Your task to perform on an android device: turn on the 12-hour format for clock Image 0: 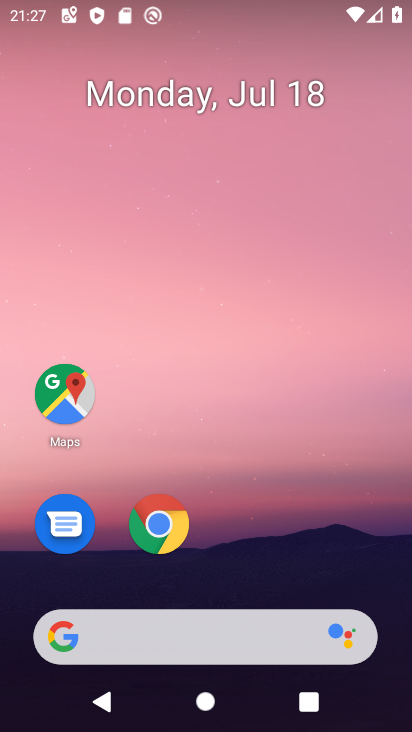
Step 0: drag from (271, 570) to (319, 0)
Your task to perform on an android device: turn on the 12-hour format for clock Image 1: 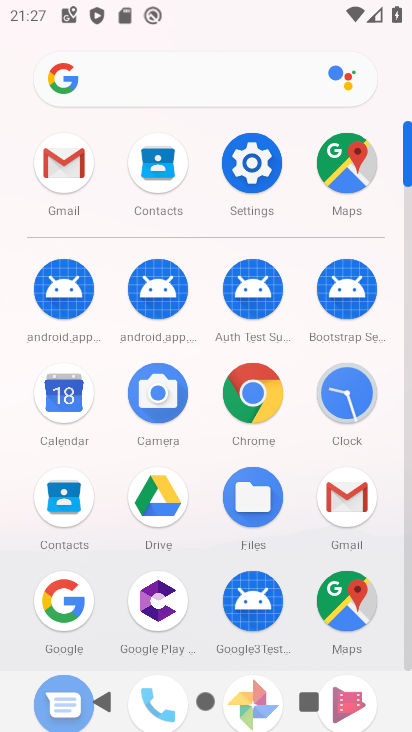
Step 1: click (345, 389)
Your task to perform on an android device: turn on the 12-hour format for clock Image 2: 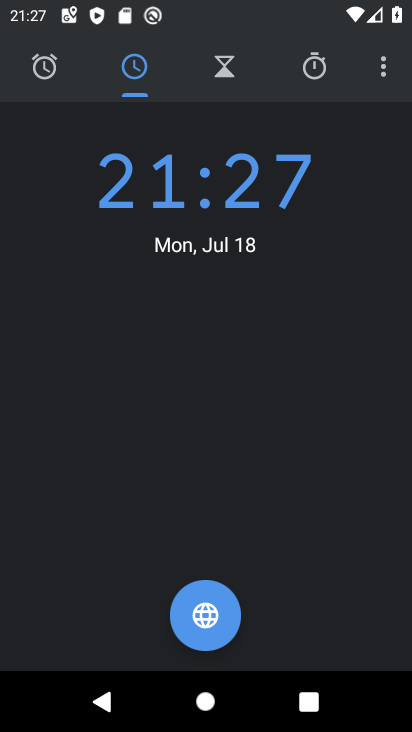
Step 2: click (393, 77)
Your task to perform on an android device: turn on the 12-hour format for clock Image 3: 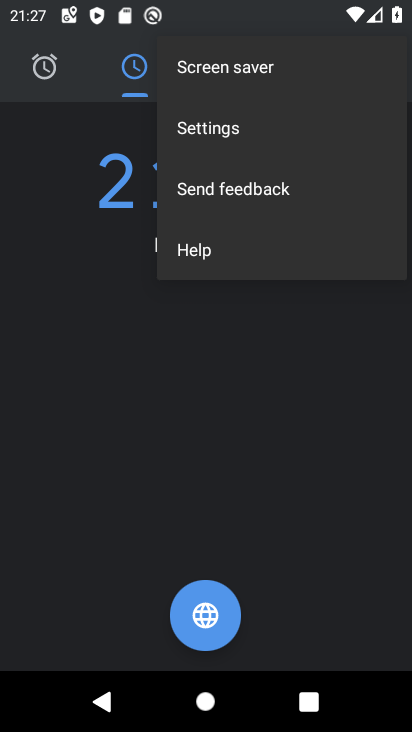
Step 3: click (330, 126)
Your task to perform on an android device: turn on the 12-hour format for clock Image 4: 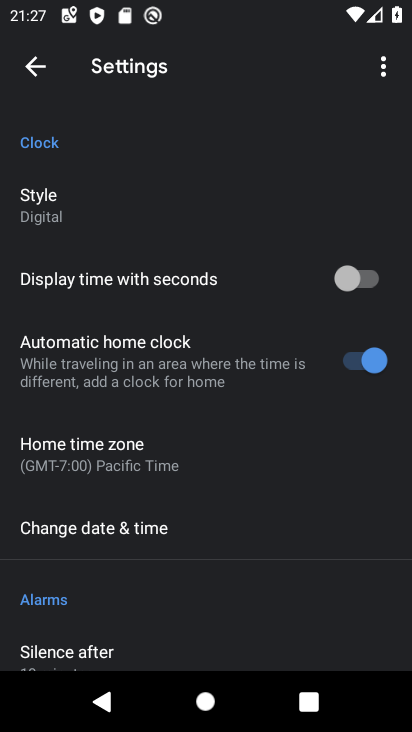
Step 4: click (279, 534)
Your task to perform on an android device: turn on the 12-hour format for clock Image 5: 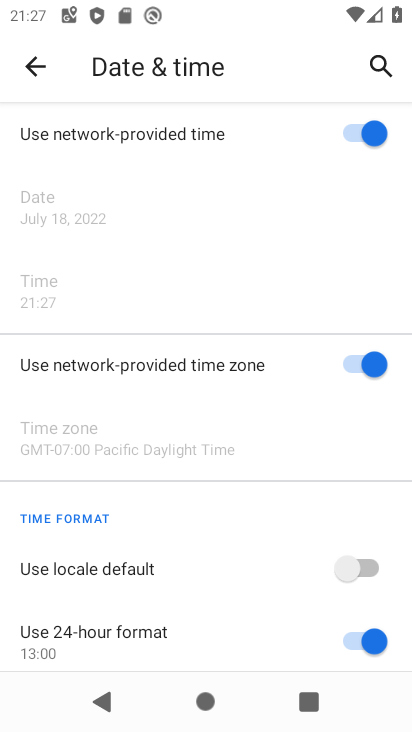
Step 5: click (359, 565)
Your task to perform on an android device: turn on the 12-hour format for clock Image 6: 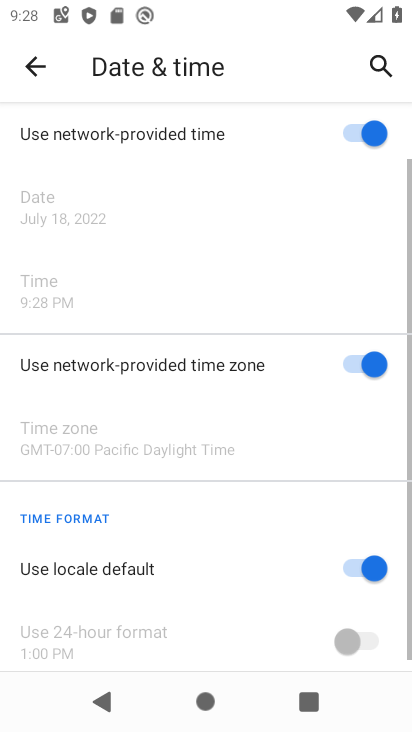
Step 6: task complete